Your task to perform on an android device: turn on the 24-hour format for clock Image 0: 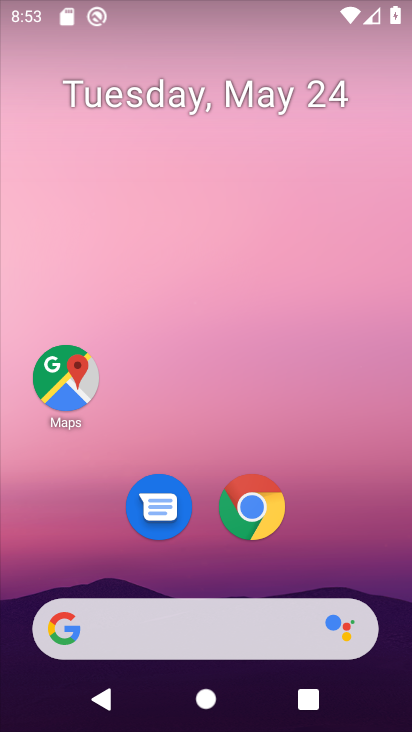
Step 0: drag from (216, 570) to (250, 143)
Your task to perform on an android device: turn on the 24-hour format for clock Image 1: 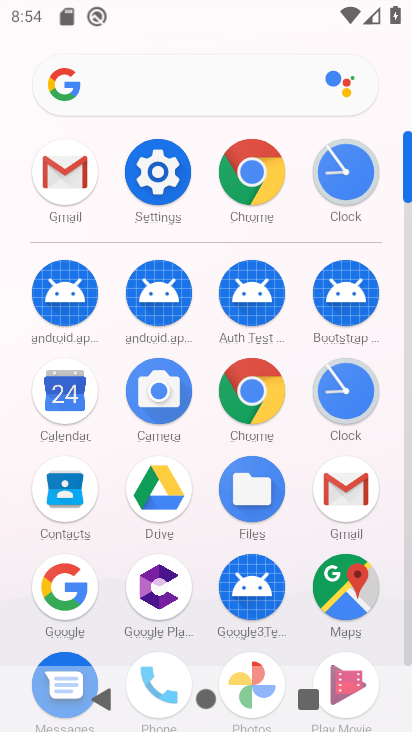
Step 1: click (348, 377)
Your task to perform on an android device: turn on the 24-hour format for clock Image 2: 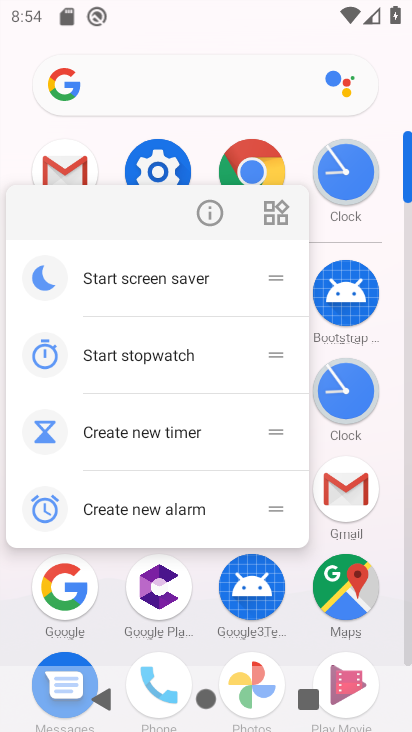
Step 2: click (201, 201)
Your task to perform on an android device: turn on the 24-hour format for clock Image 3: 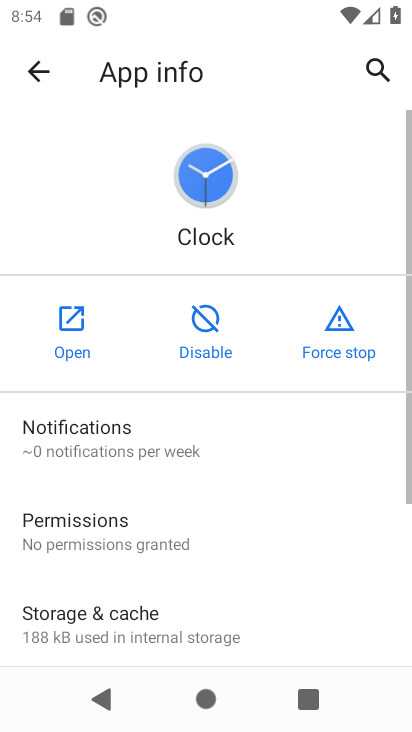
Step 3: click (69, 329)
Your task to perform on an android device: turn on the 24-hour format for clock Image 4: 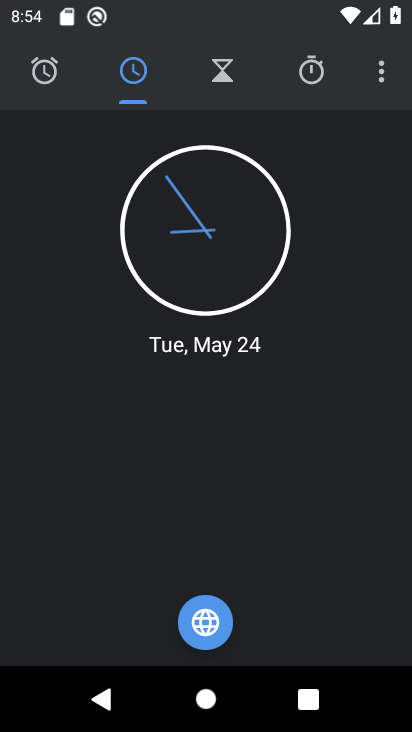
Step 4: click (370, 80)
Your task to perform on an android device: turn on the 24-hour format for clock Image 5: 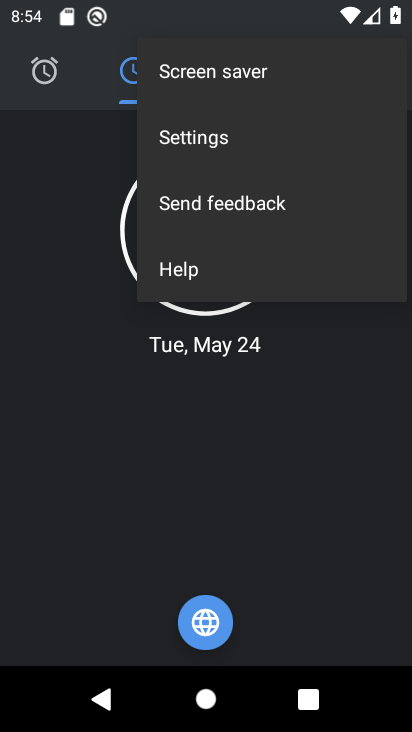
Step 5: click (225, 122)
Your task to perform on an android device: turn on the 24-hour format for clock Image 6: 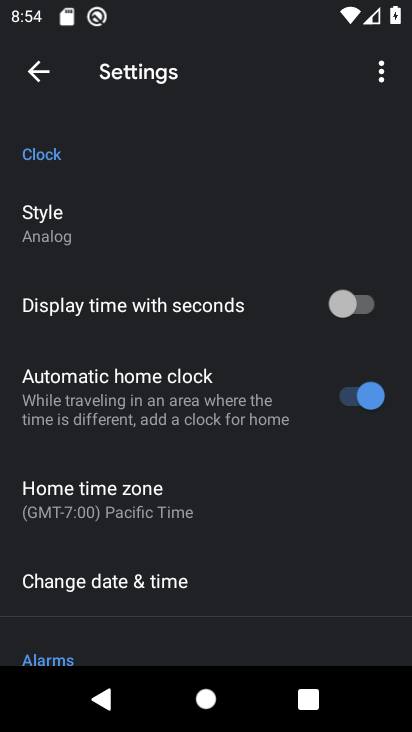
Step 6: drag from (167, 586) to (377, 86)
Your task to perform on an android device: turn on the 24-hour format for clock Image 7: 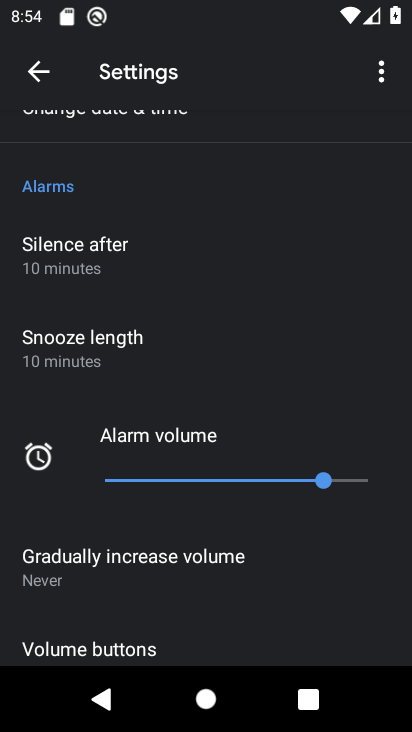
Step 7: drag from (178, 591) to (294, 160)
Your task to perform on an android device: turn on the 24-hour format for clock Image 8: 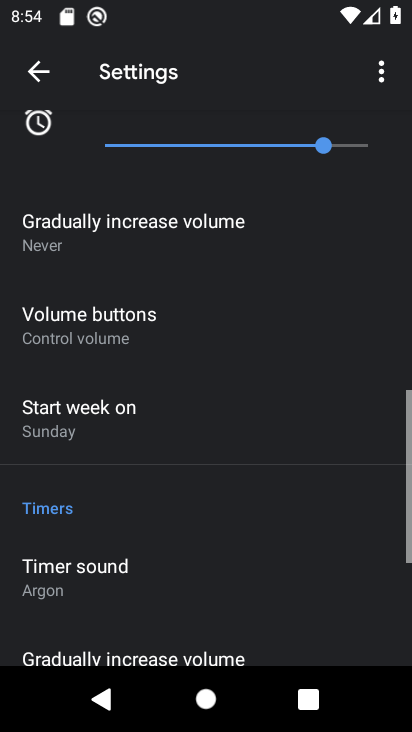
Step 8: drag from (297, 141) to (224, 723)
Your task to perform on an android device: turn on the 24-hour format for clock Image 9: 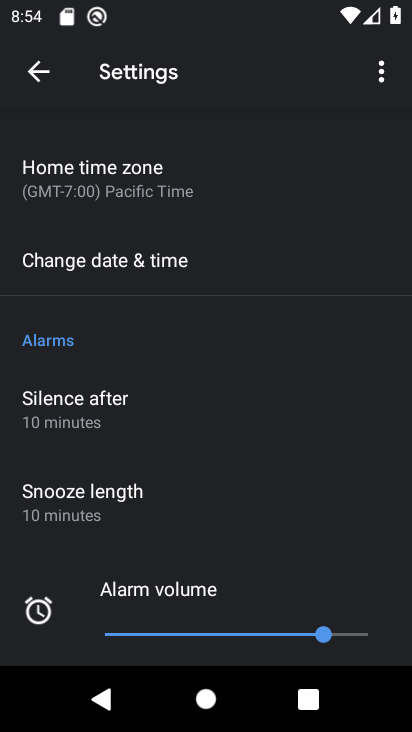
Step 9: click (146, 229)
Your task to perform on an android device: turn on the 24-hour format for clock Image 10: 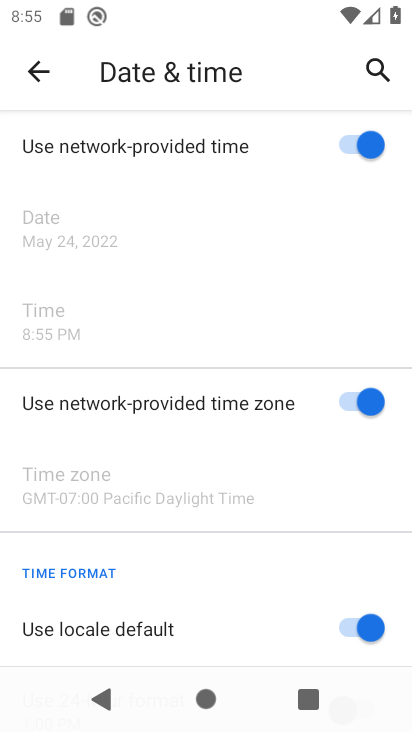
Step 10: drag from (195, 625) to (55, 25)
Your task to perform on an android device: turn on the 24-hour format for clock Image 11: 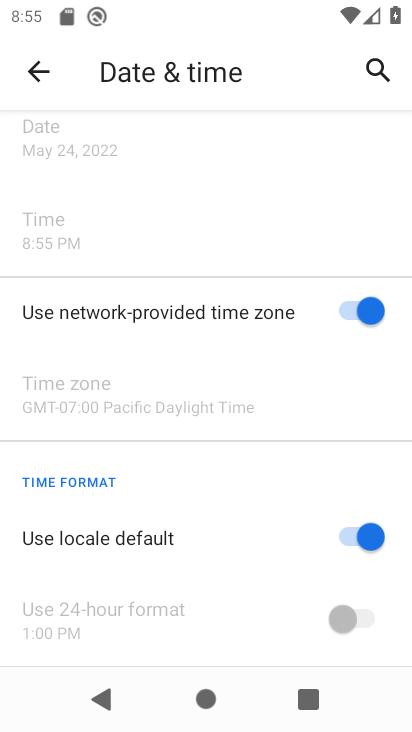
Step 11: drag from (174, 616) to (322, 168)
Your task to perform on an android device: turn on the 24-hour format for clock Image 12: 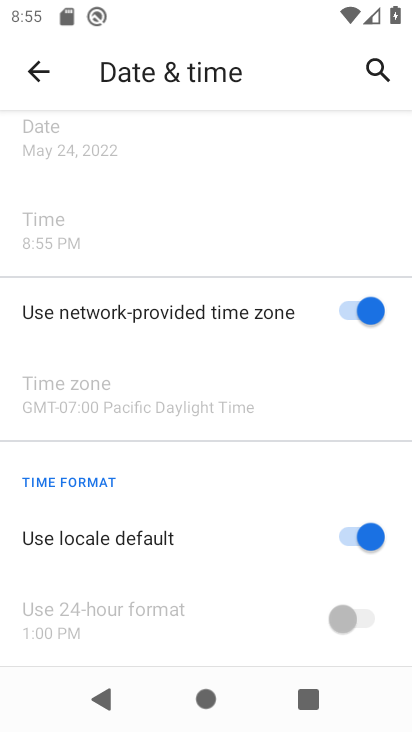
Step 12: drag from (196, 502) to (225, 709)
Your task to perform on an android device: turn on the 24-hour format for clock Image 13: 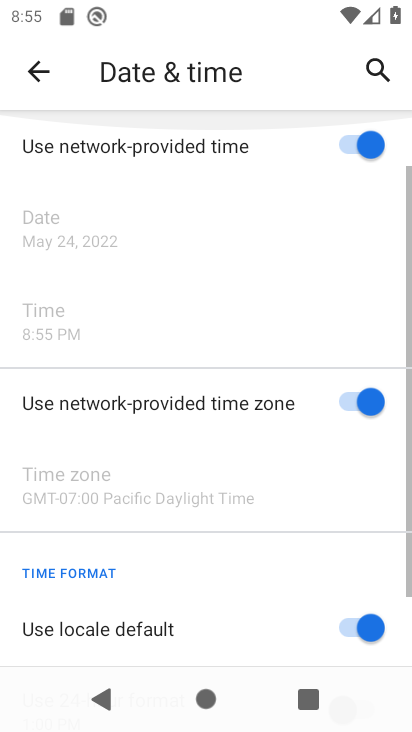
Step 13: drag from (204, 614) to (247, 310)
Your task to perform on an android device: turn on the 24-hour format for clock Image 14: 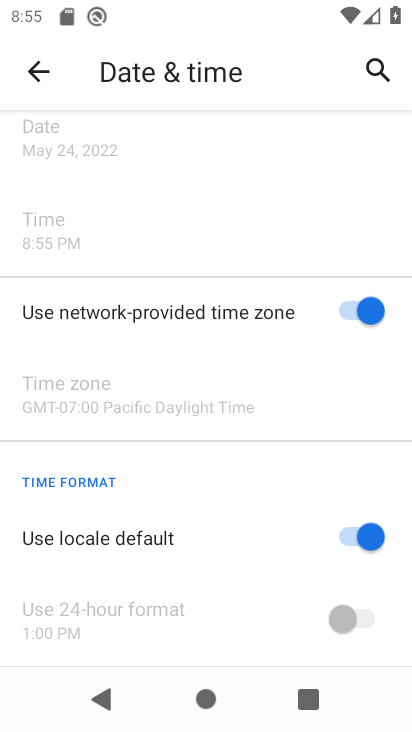
Step 14: drag from (220, 595) to (247, 463)
Your task to perform on an android device: turn on the 24-hour format for clock Image 15: 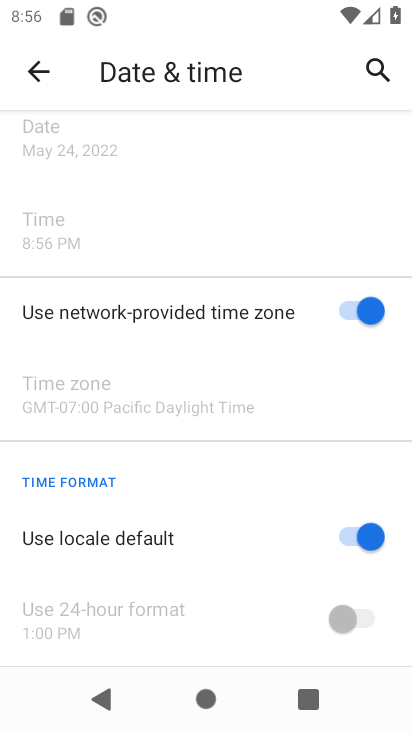
Step 15: click (372, 530)
Your task to perform on an android device: turn on the 24-hour format for clock Image 16: 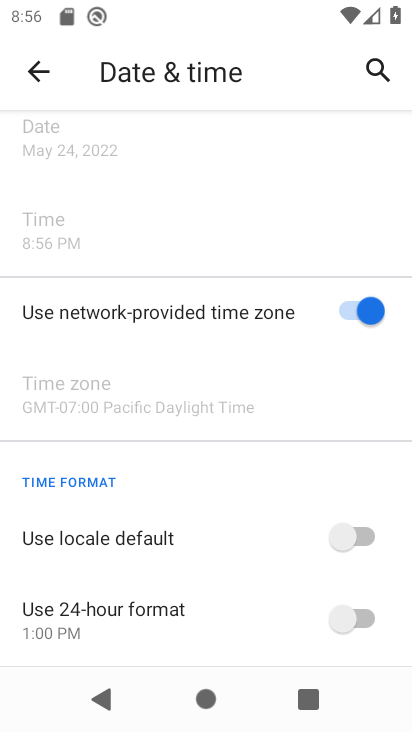
Step 16: click (354, 631)
Your task to perform on an android device: turn on the 24-hour format for clock Image 17: 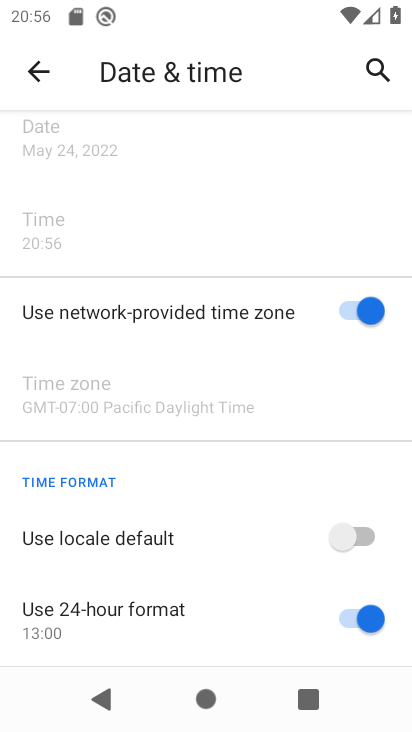
Step 17: task complete